Your task to perform on an android device: Open notification settings Image 0: 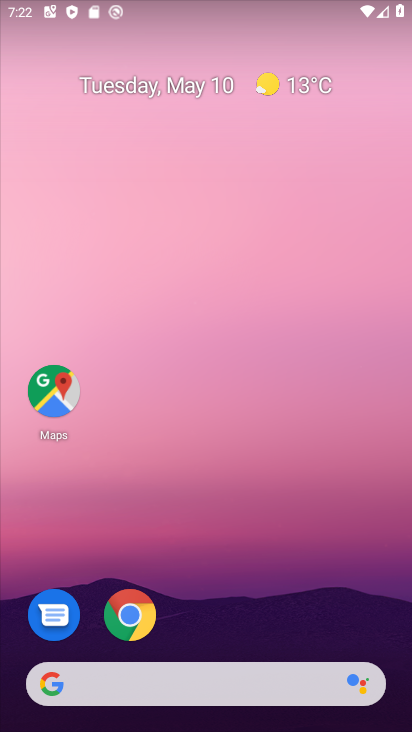
Step 0: drag from (207, 565) to (99, 102)
Your task to perform on an android device: Open notification settings Image 1: 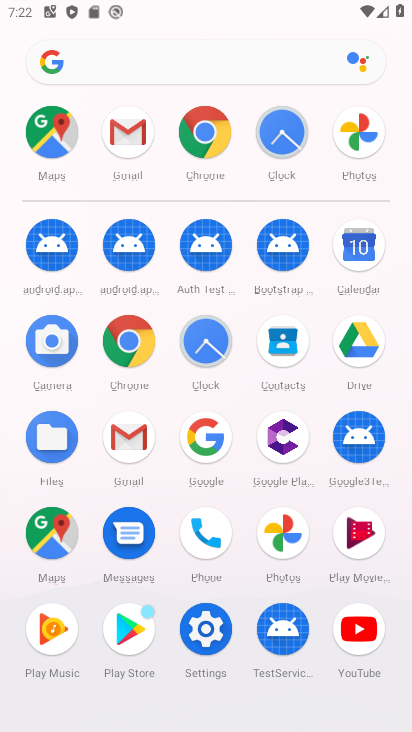
Step 1: click (209, 631)
Your task to perform on an android device: Open notification settings Image 2: 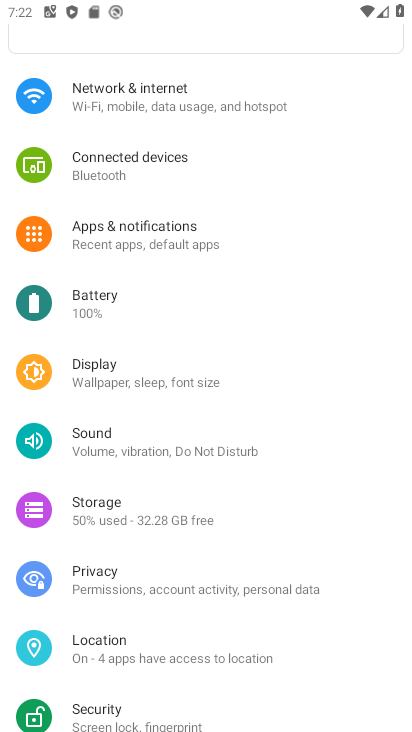
Step 2: click (129, 206)
Your task to perform on an android device: Open notification settings Image 3: 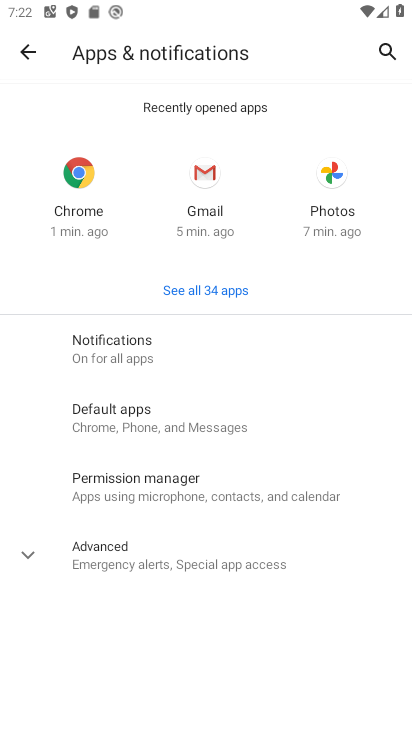
Step 3: task complete